Your task to perform on an android device: Open internet settings Image 0: 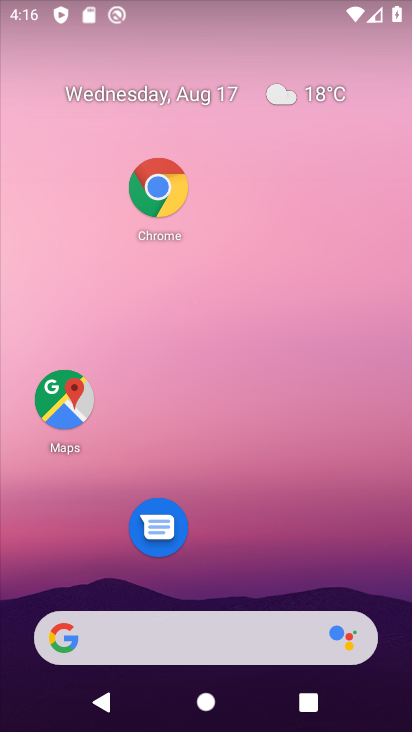
Step 0: drag from (196, 5) to (168, 641)
Your task to perform on an android device: Open internet settings Image 1: 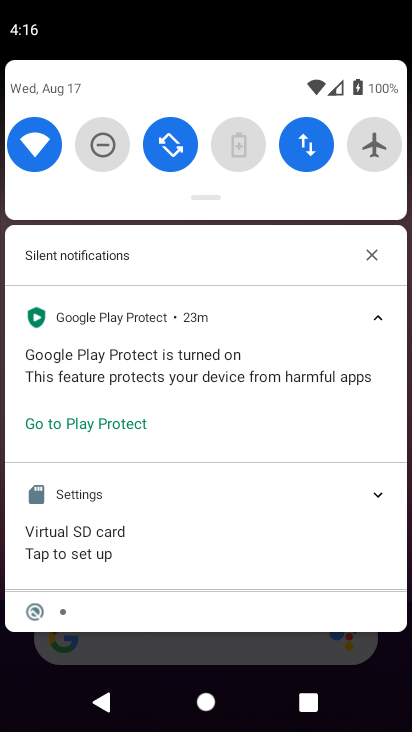
Step 1: click (320, 144)
Your task to perform on an android device: Open internet settings Image 2: 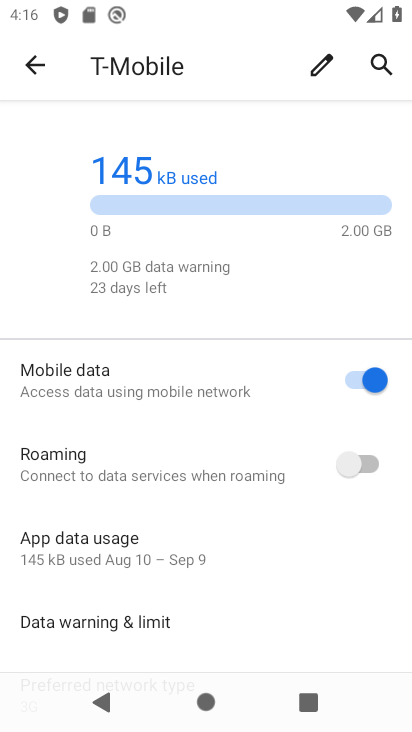
Step 2: task complete